Your task to perform on an android device: uninstall "Truecaller" Image 0: 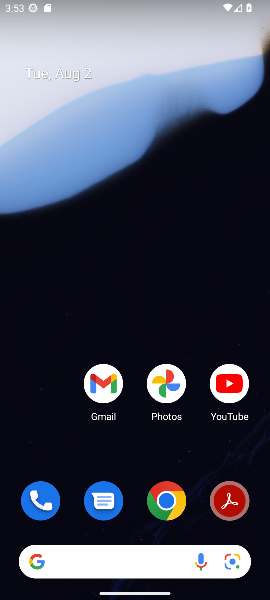
Step 0: drag from (217, 330) to (73, 0)
Your task to perform on an android device: uninstall "Truecaller" Image 1: 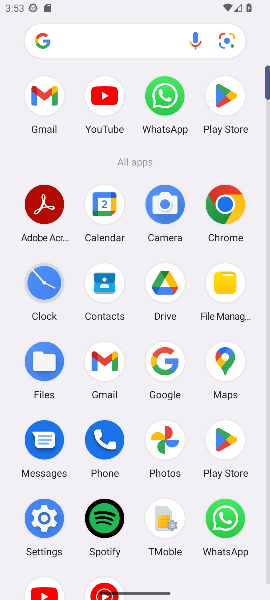
Step 1: click (220, 443)
Your task to perform on an android device: uninstall "Truecaller" Image 2: 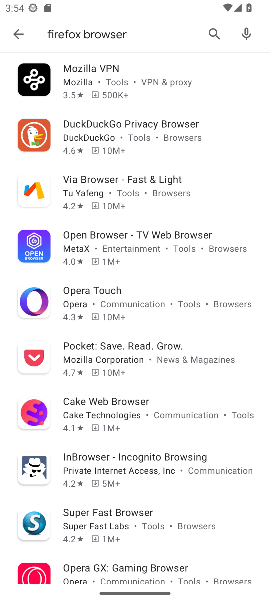
Step 2: click (213, 32)
Your task to perform on an android device: uninstall "Truecaller" Image 3: 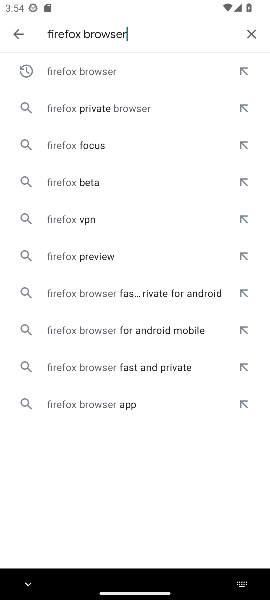
Step 3: click (256, 32)
Your task to perform on an android device: uninstall "Truecaller" Image 4: 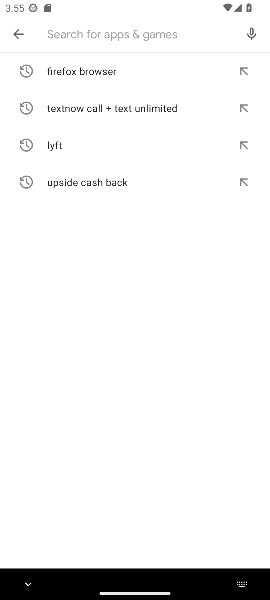
Step 4: type "truecaller"
Your task to perform on an android device: uninstall "Truecaller" Image 5: 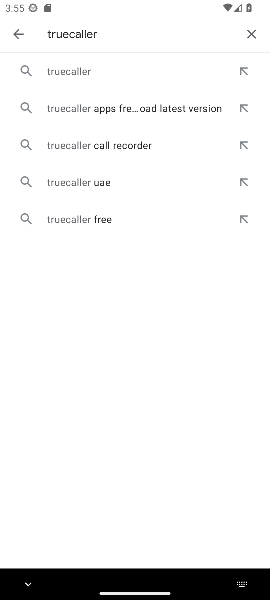
Step 5: click (99, 69)
Your task to perform on an android device: uninstall "Truecaller" Image 6: 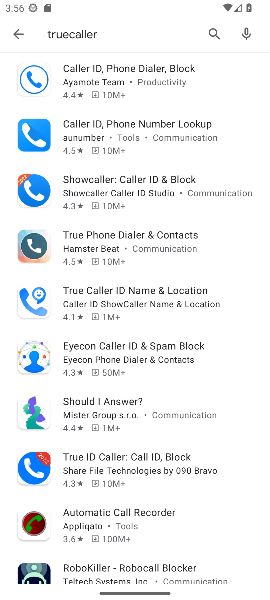
Step 6: task complete